Your task to perform on an android device: remove spam from my inbox in the gmail app Image 0: 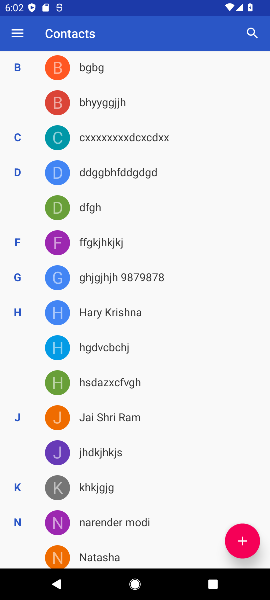
Step 0: press home button
Your task to perform on an android device: remove spam from my inbox in the gmail app Image 1: 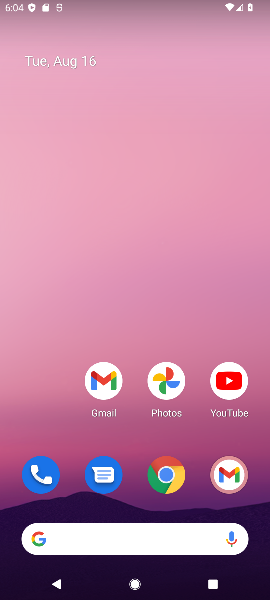
Step 1: drag from (138, 481) to (109, 76)
Your task to perform on an android device: remove spam from my inbox in the gmail app Image 2: 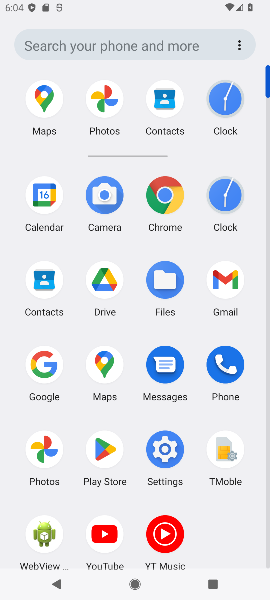
Step 2: click (226, 277)
Your task to perform on an android device: remove spam from my inbox in the gmail app Image 3: 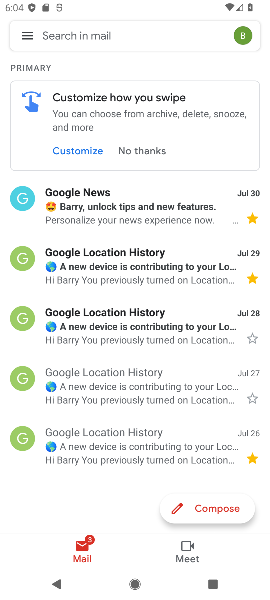
Step 3: task complete